Your task to perform on an android device: turn on sleep mode Image 0: 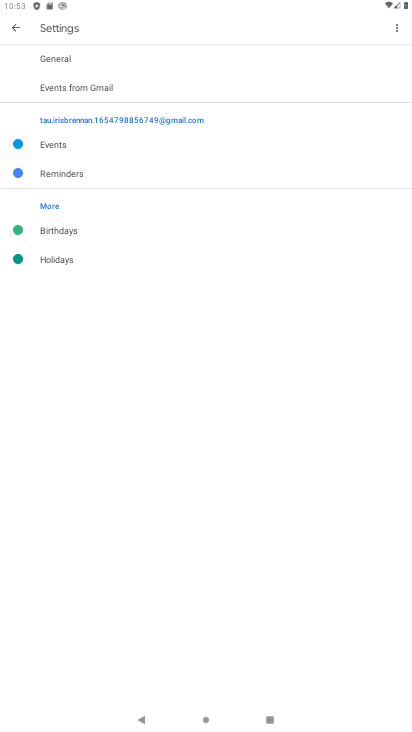
Step 0: press home button
Your task to perform on an android device: turn on sleep mode Image 1: 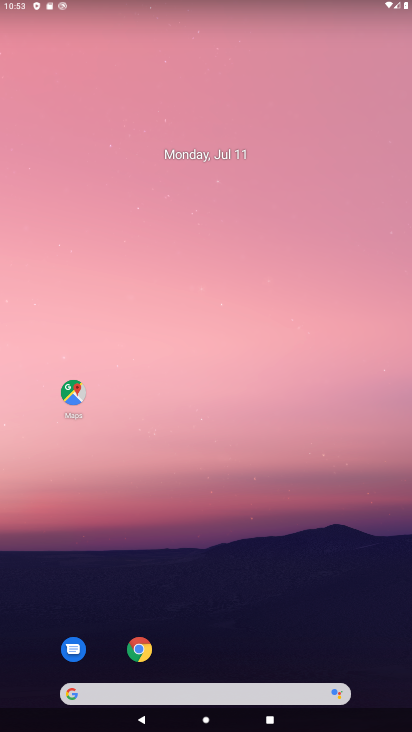
Step 1: drag from (236, 693) to (224, 166)
Your task to perform on an android device: turn on sleep mode Image 2: 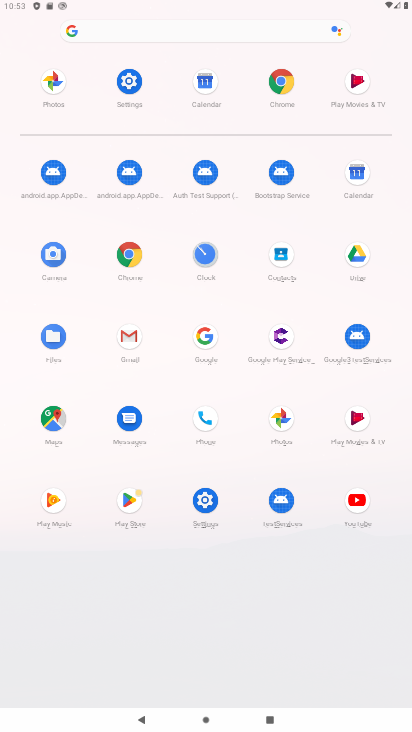
Step 2: click (128, 76)
Your task to perform on an android device: turn on sleep mode Image 3: 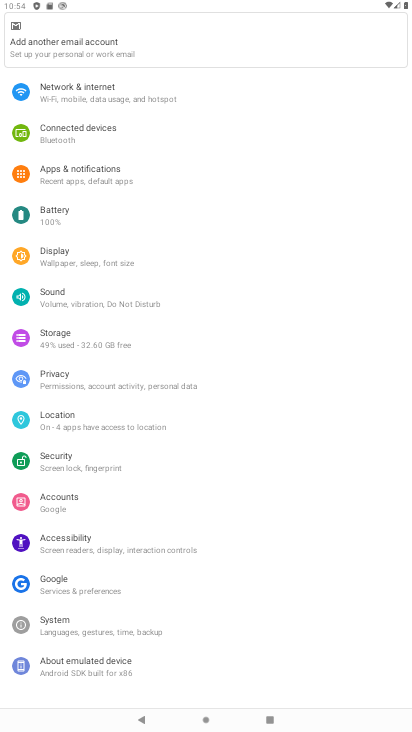
Step 3: click (105, 274)
Your task to perform on an android device: turn on sleep mode Image 4: 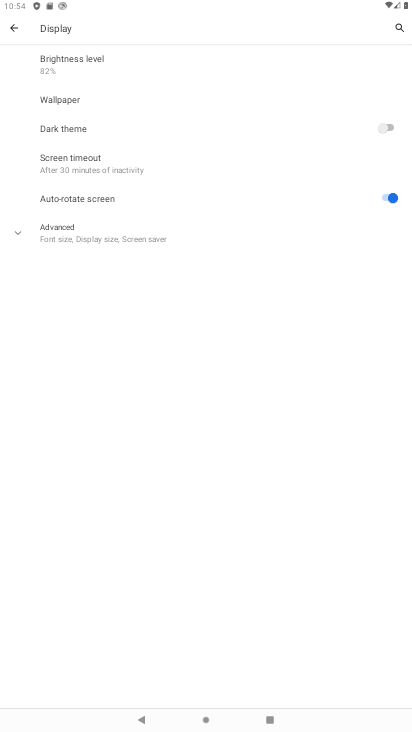
Step 4: click (99, 241)
Your task to perform on an android device: turn on sleep mode Image 5: 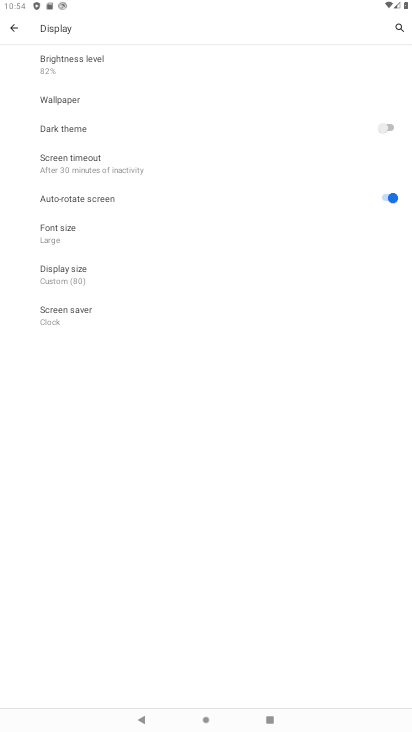
Step 5: click (68, 313)
Your task to perform on an android device: turn on sleep mode Image 6: 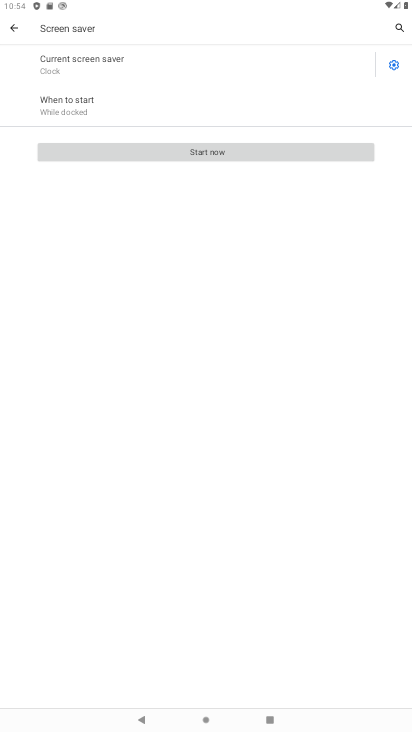
Step 6: task complete